Your task to perform on an android device: Open privacy settings Image 0: 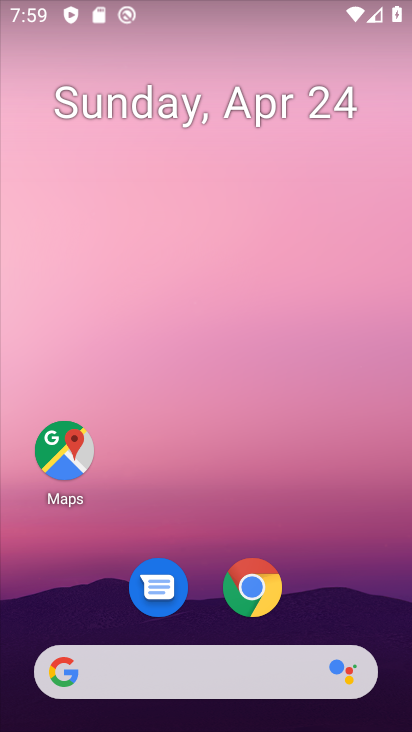
Step 0: drag from (353, 573) to (306, 6)
Your task to perform on an android device: Open privacy settings Image 1: 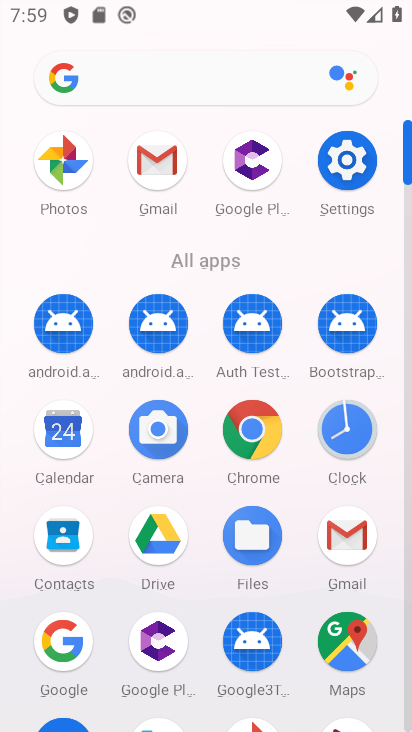
Step 1: click (357, 184)
Your task to perform on an android device: Open privacy settings Image 2: 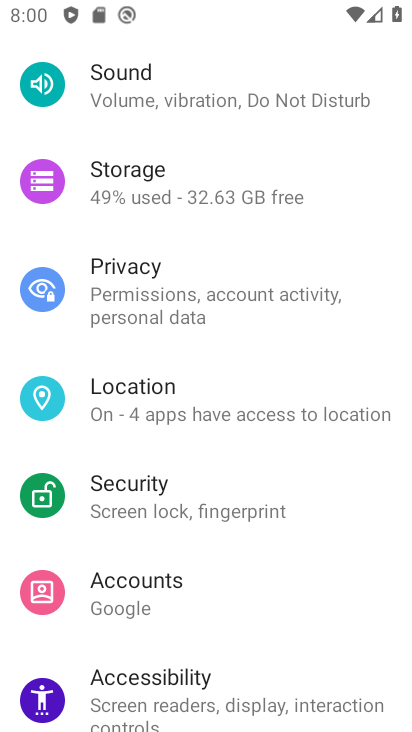
Step 2: drag from (263, 631) to (222, 57)
Your task to perform on an android device: Open privacy settings Image 3: 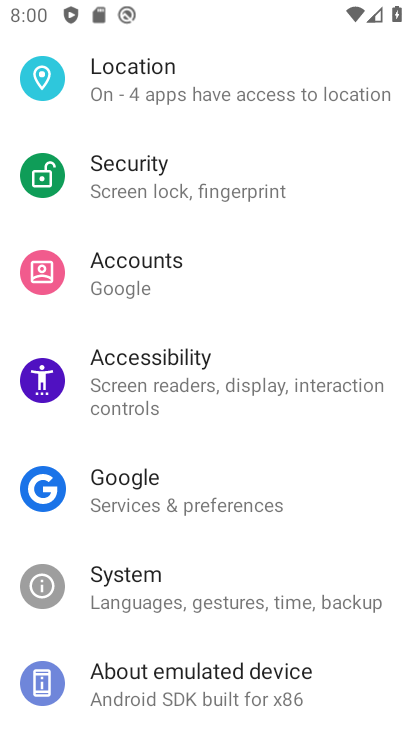
Step 3: drag from (251, 580) to (217, 52)
Your task to perform on an android device: Open privacy settings Image 4: 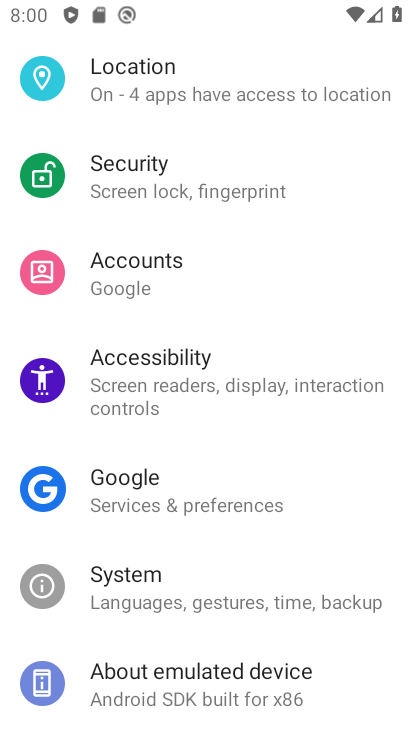
Step 4: drag from (231, 239) to (220, 447)
Your task to perform on an android device: Open privacy settings Image 5: 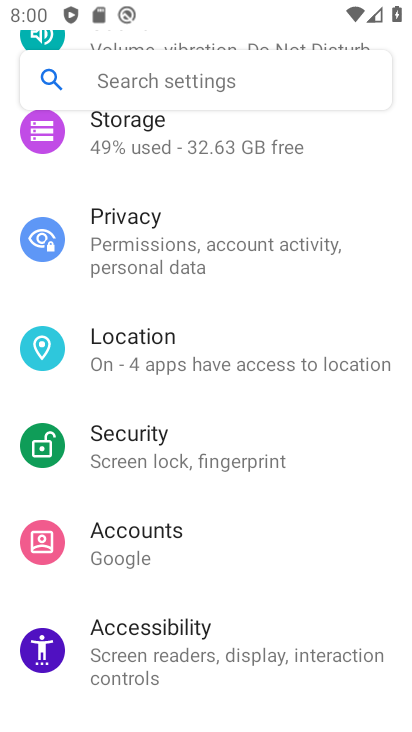
Step 5: click (157, 266)
Your task to perform on an android device: Open privacy settings Image 6: 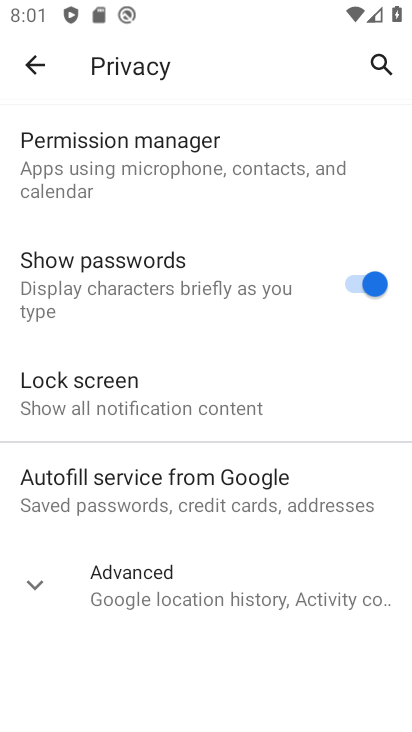
Step 6: task complete